Your task to perform on an android device: Open the stopwatch Image 0: 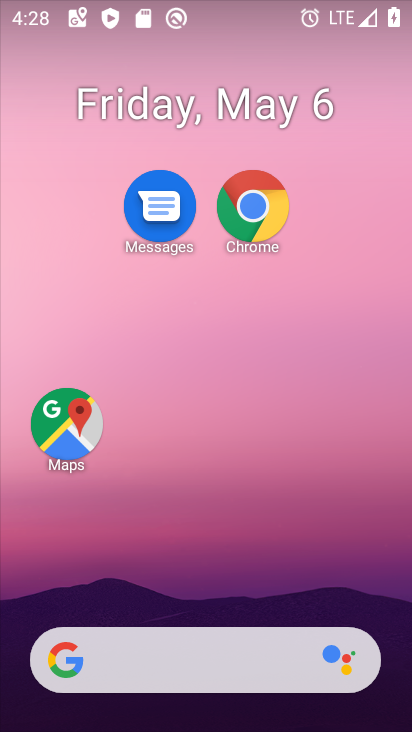
Step 0: drag from (217, 634) to (203, 276)
Your task to perform on an android device: Open the stopwatch Image 1: 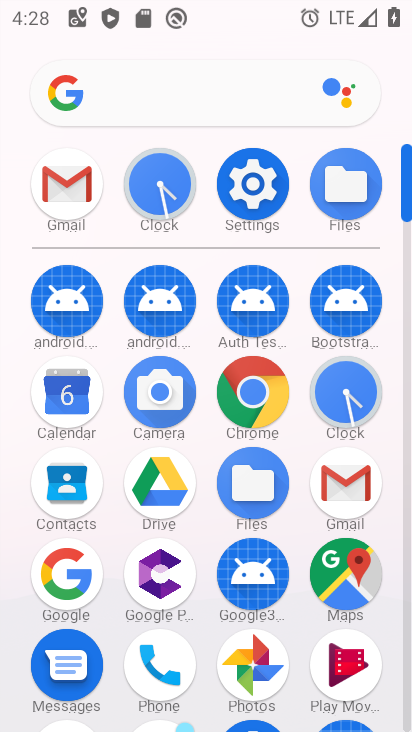
Step 1: click (323, 390)
Your task to perform on an android device: Open the stopwatch Image 2: 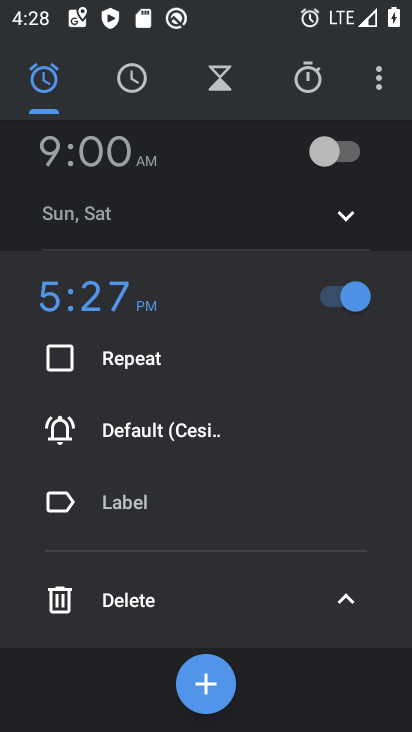
Step 2: click (296, 83)
Your task to perform on an android device: Open the stopwatch Image 3: 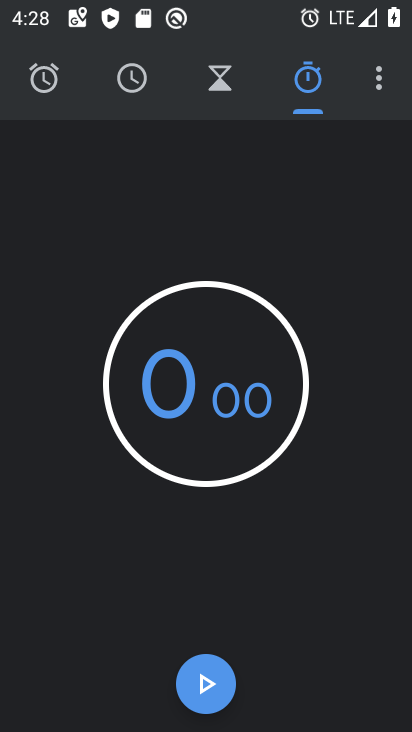
Step 3: task complete